Your task to perform on an android device: open app "Reddit" (install if not already installed) and enter user name: "issues@yahoo.com" and password: "belt" Image 0: 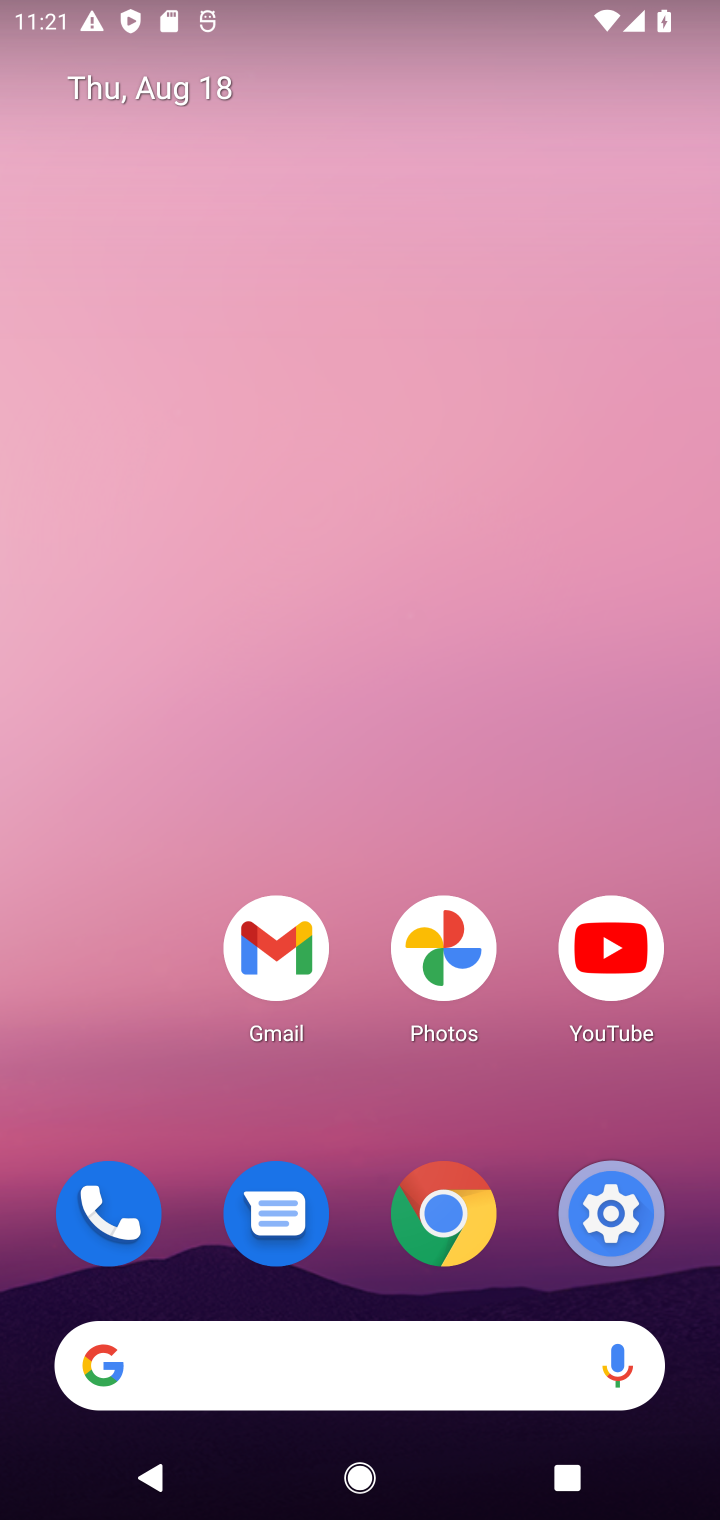
Step 0: press home button
Your task to perform on an android device: open app "Reddit" (install if not already installed) and enter user name: "issues@yahoo.com" and password: "belt" Image 1: 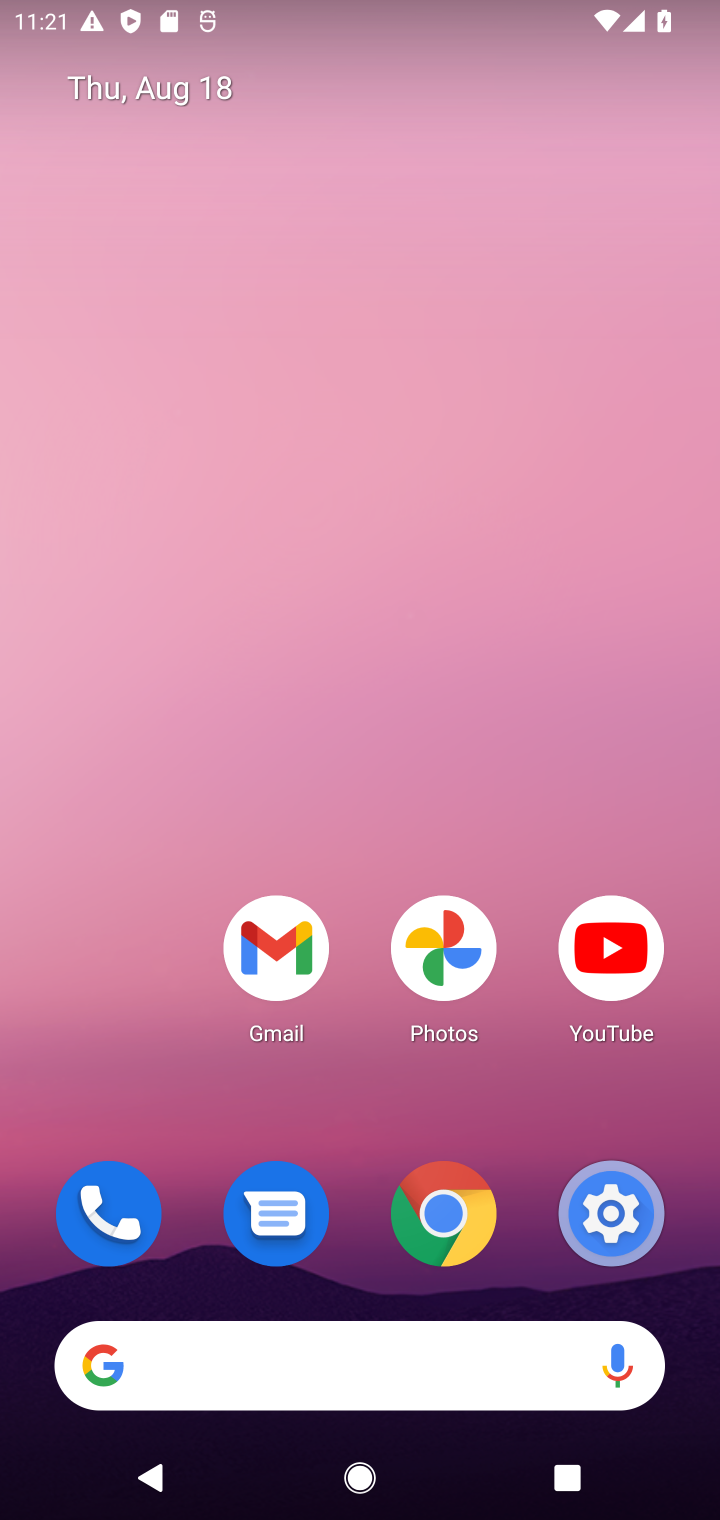
Step 1: click (437, 15)
Your task to perform on an android device: open app "Reddit" (install if not already installed) and enter user name: "issues@yahoo.com" and password: "belt" Image 2: 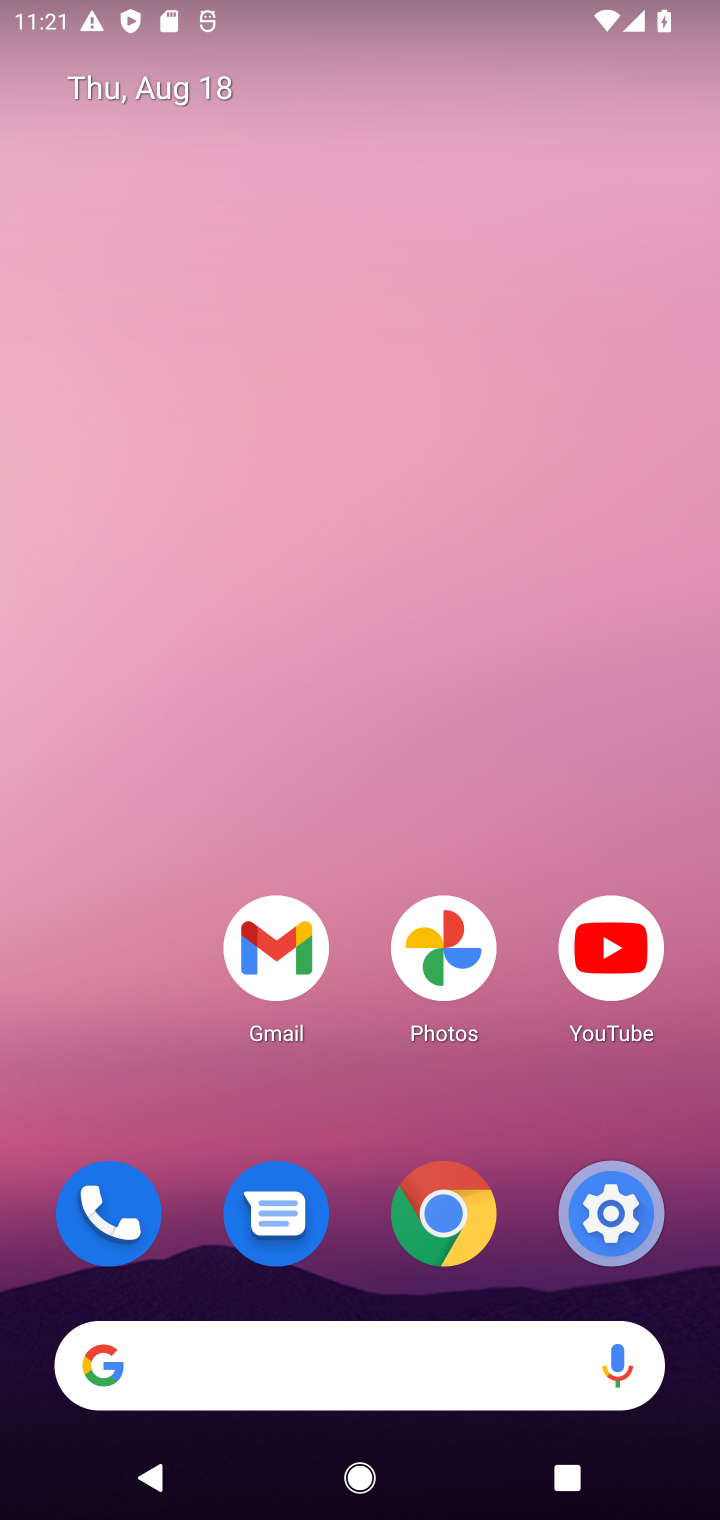
Step 2: drag from (361, 838) to (387, 133)
Your task to perform on an android device: open app "Reddit" (install if not already installed) and enter user name: "issues@yahoo.com" and password: "belt" Image 3: 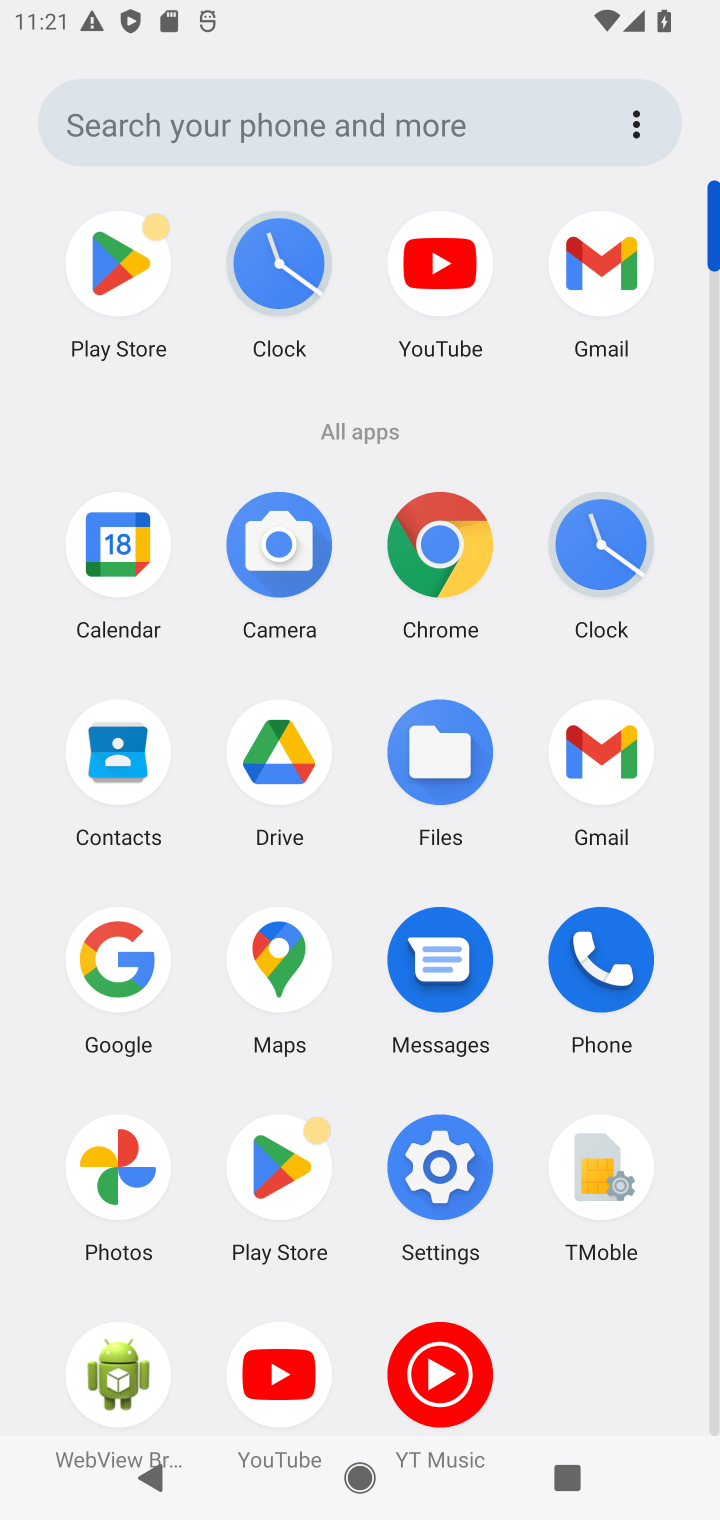
Step 3: click (111, 254)
Your task to perform on an android device: open app "Reddit" (install if not already installed) and enter user name: "issues@yahoo.com" and password: "belt" Image 4: 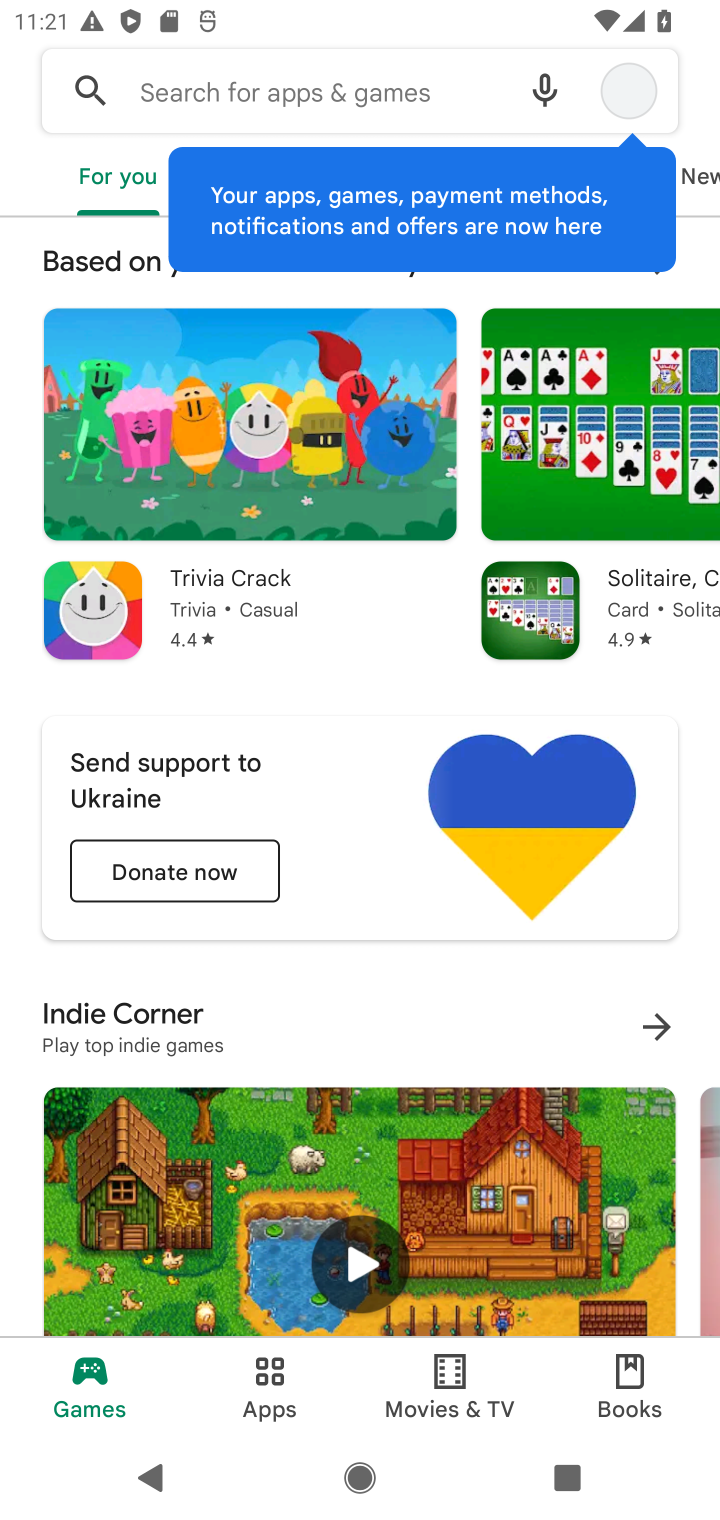
Step 4: click (323, 88)
Your task to perform on an android device: open app "Reddit" (install if not already installed) and enter user name: "issues@yahoo.com" and password: "belt" Image 5: 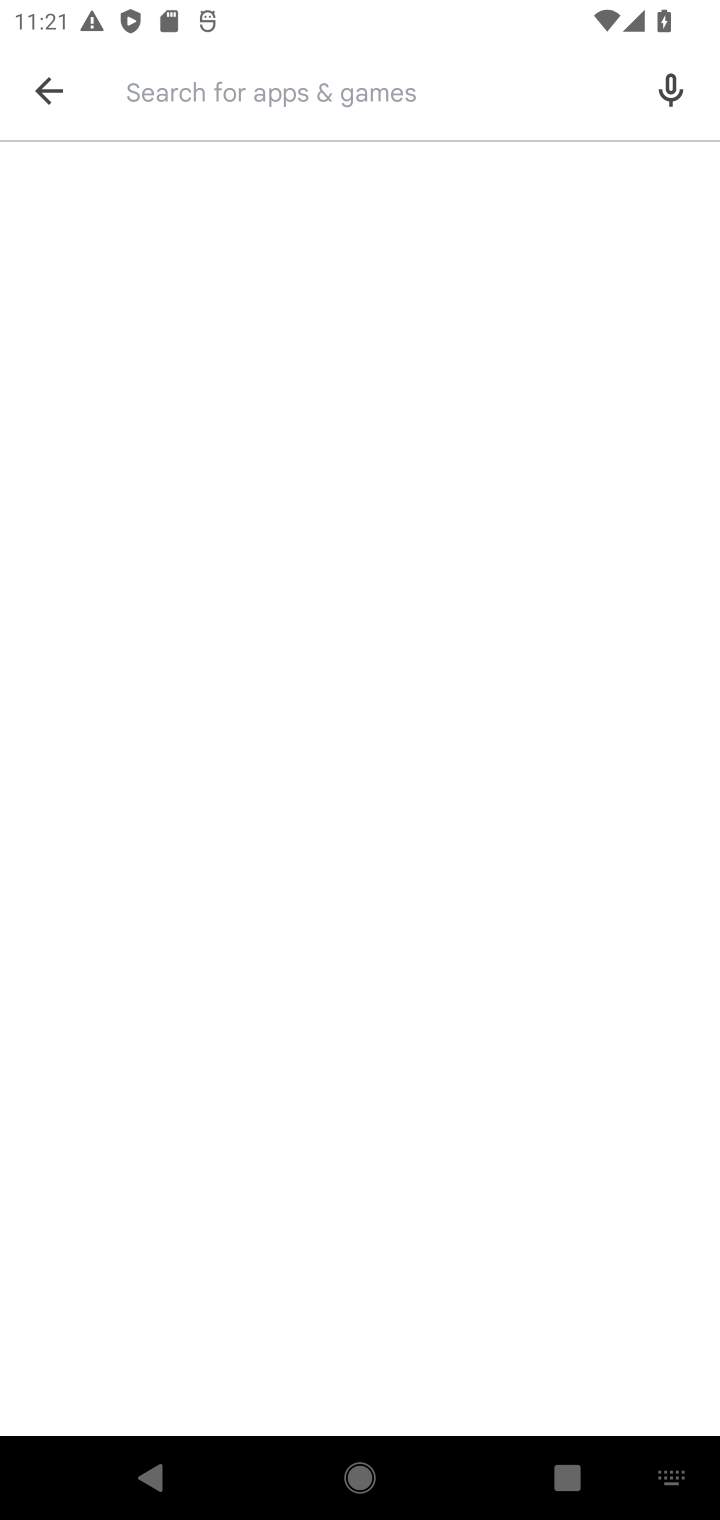
Step 5: type "Reddit"
Your task to perform on an android device: open app "Reddit" (install if not already installed) and enter user name: "issues@yahoo.com" and password: "belt" Image 6: 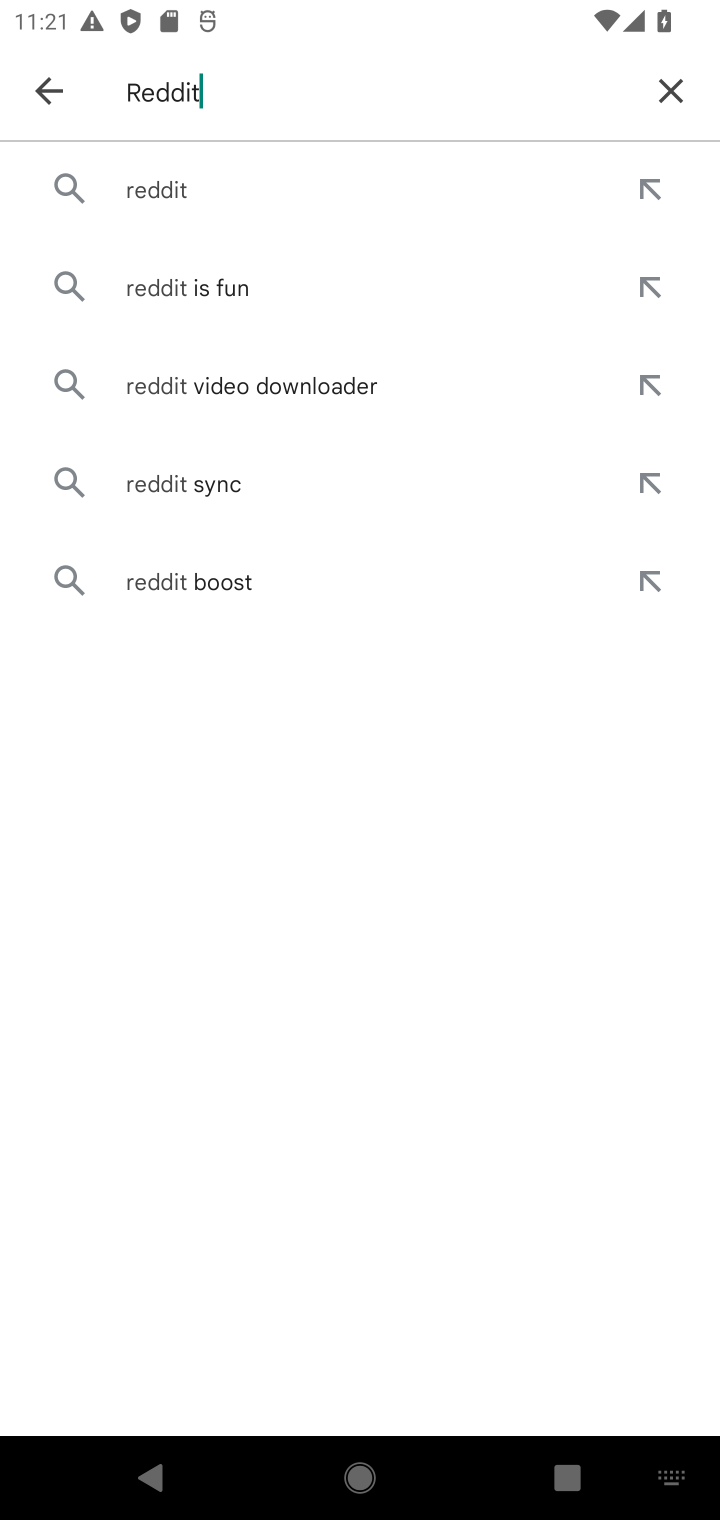
Step 6: click (237, 185)
Your task to perform on an android device: open app "Reddit" (install if not already installed) and enter user name: "issues@yahoo.com" and password: "belt" Image 7: 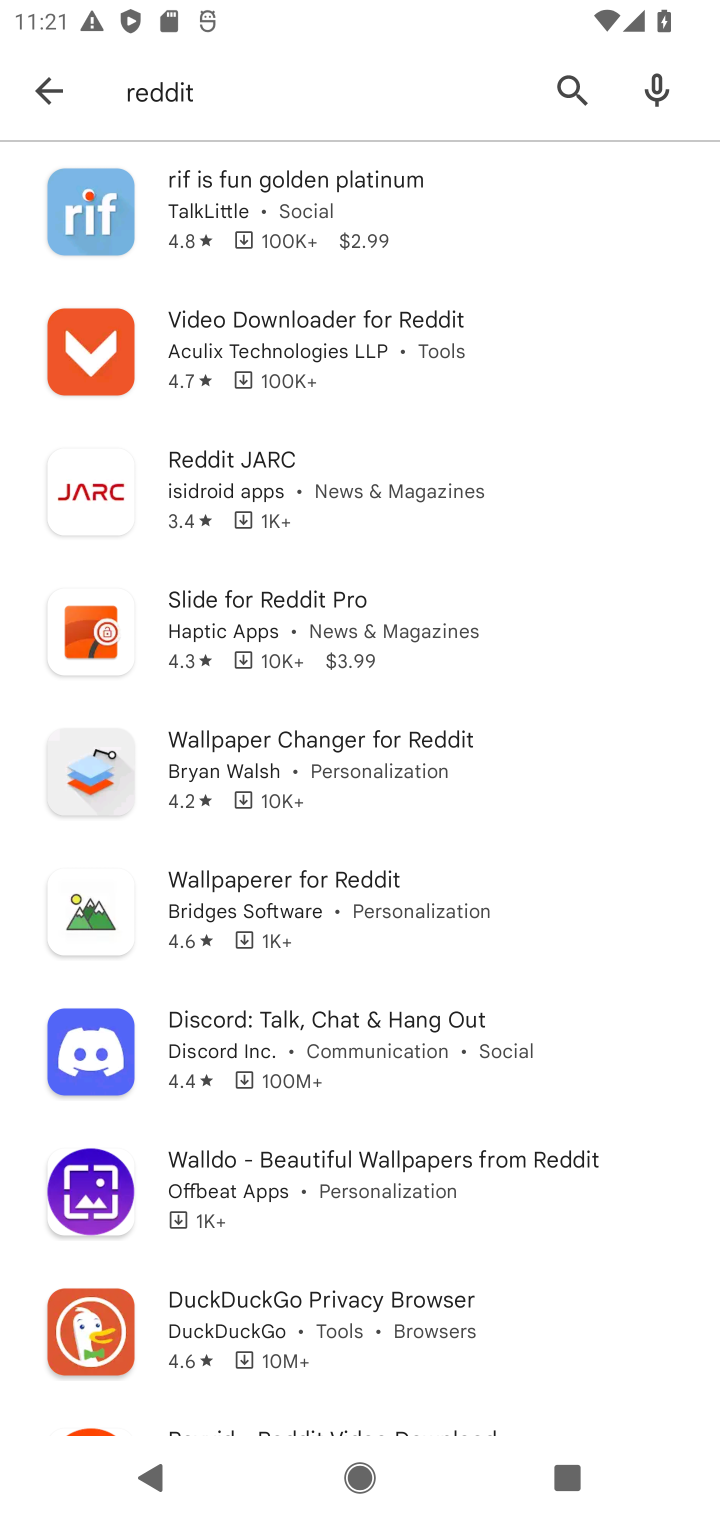
Step 7: task complete